Your task to perform on an android device: turn off priority inbox in the gmail app Image 0: 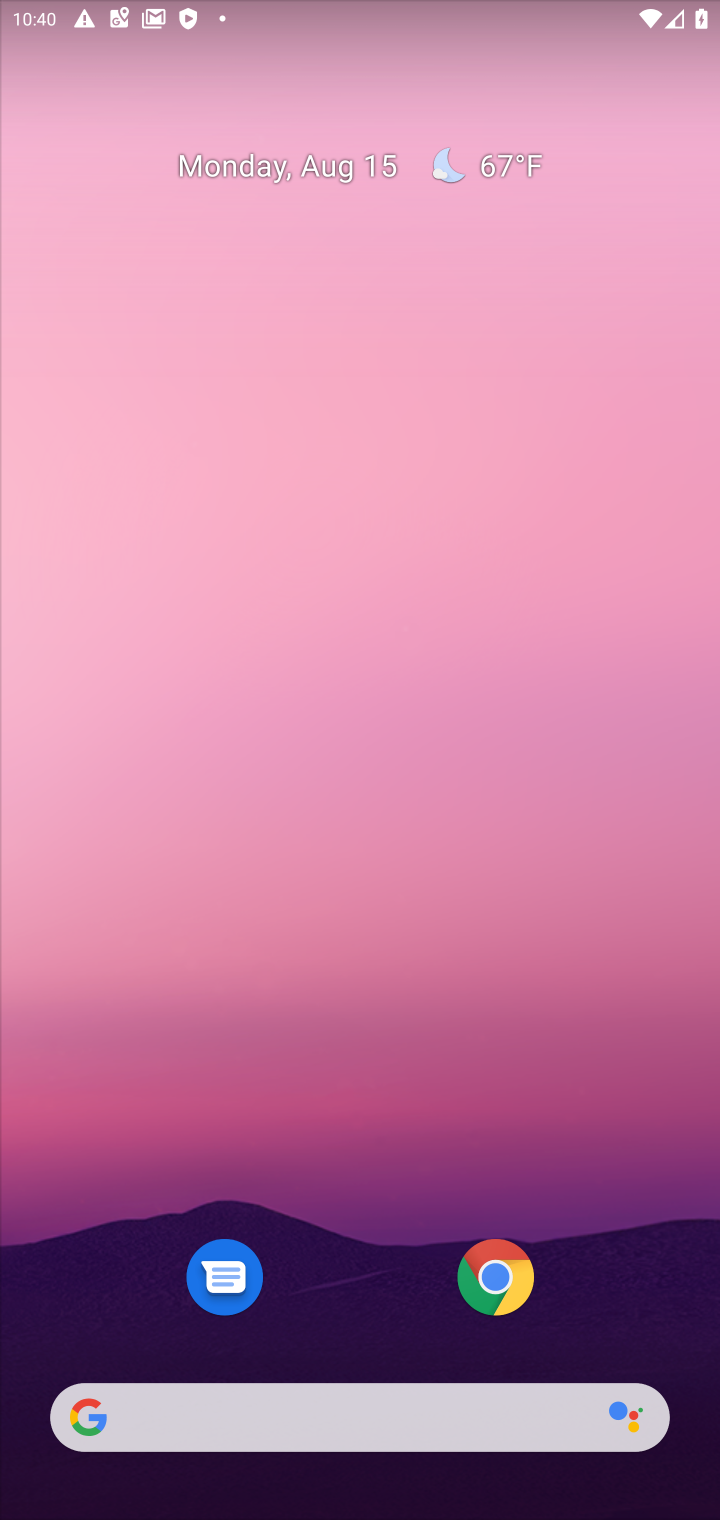
Step 0: drag from (454, 1375) to (557, 468)
Your task to perform on an android device: turn off priority inbox in the gmail app Image 1: 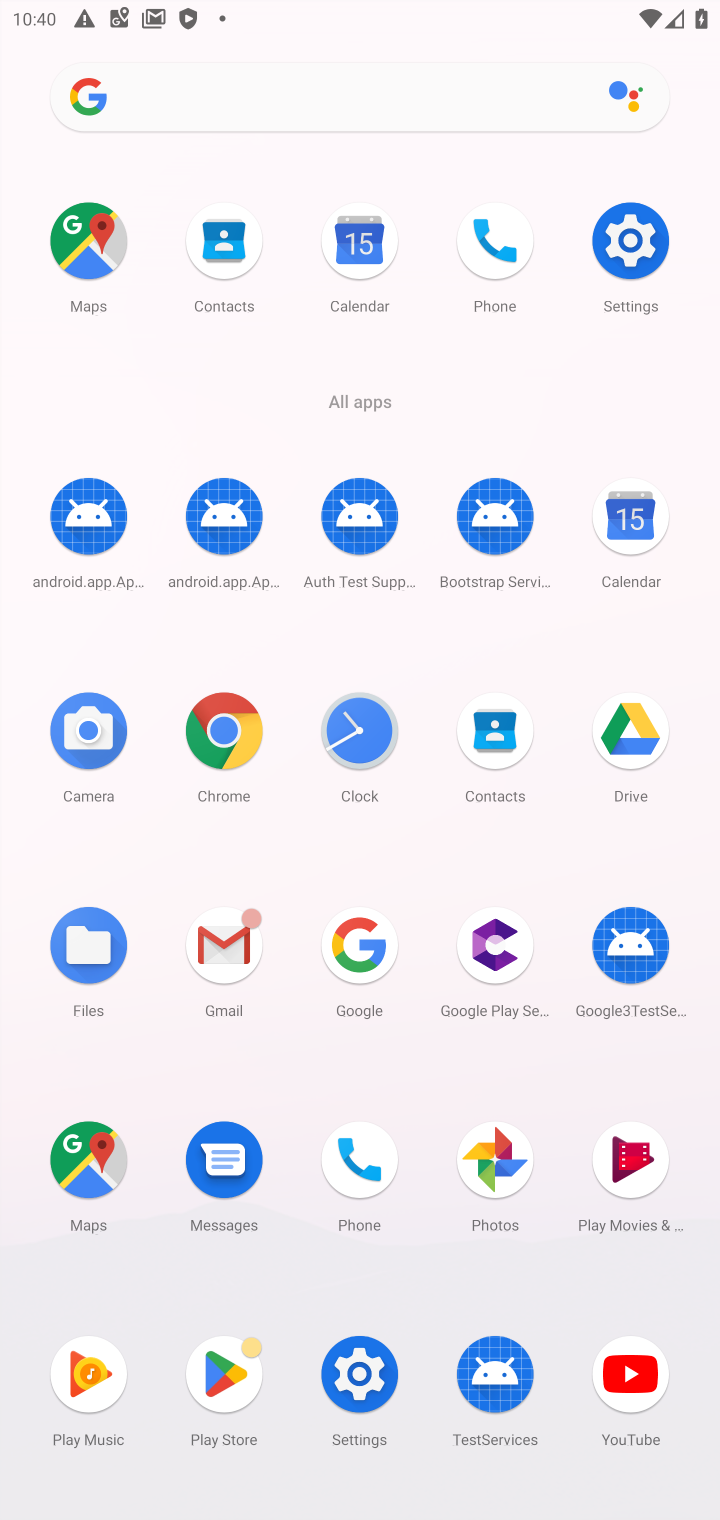
Step 1: click (210, 964)
Your task to perform on an android device: turn off priority inbox in the gmail app Image 2: 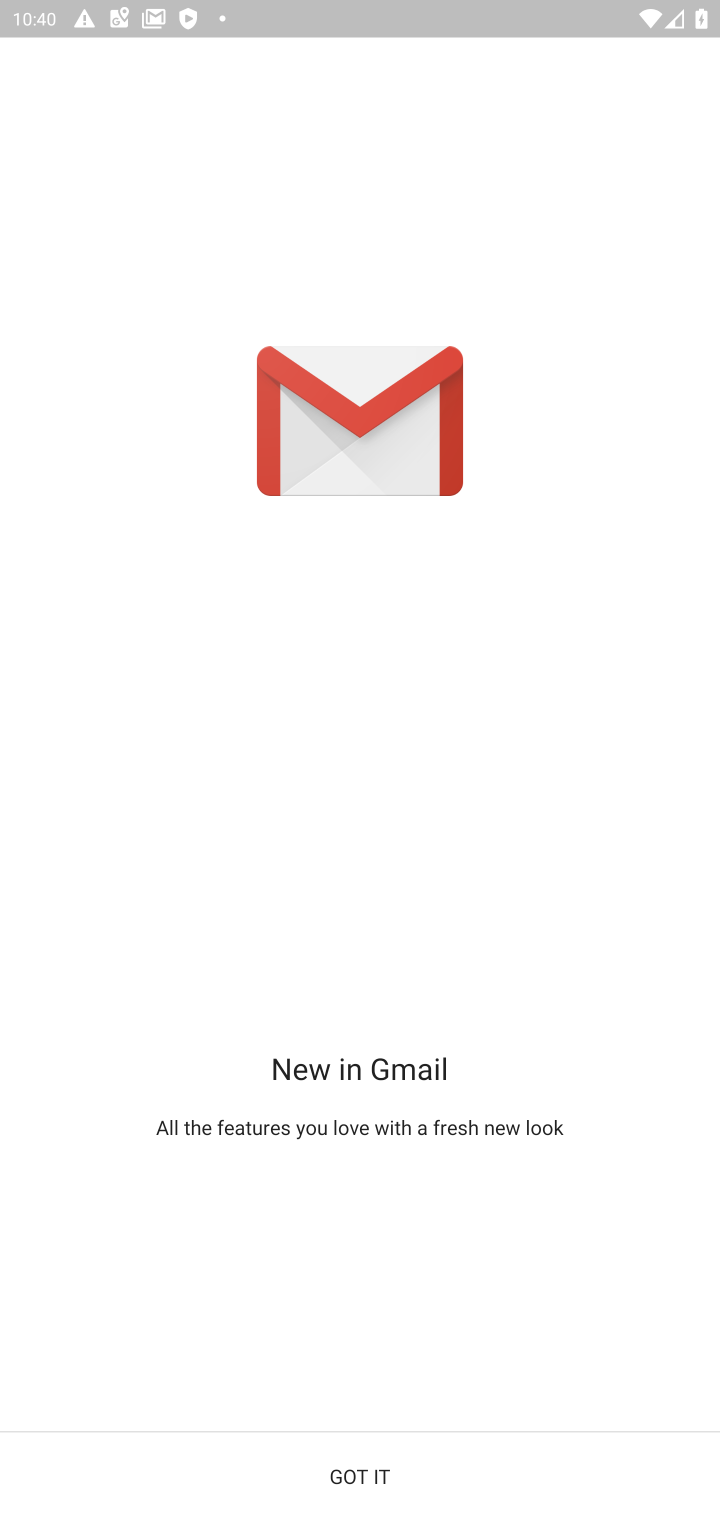
Step 2: click (457, 1441)
Your task to perform on an android device: turn off priority inbox in the gmail app Image 3: 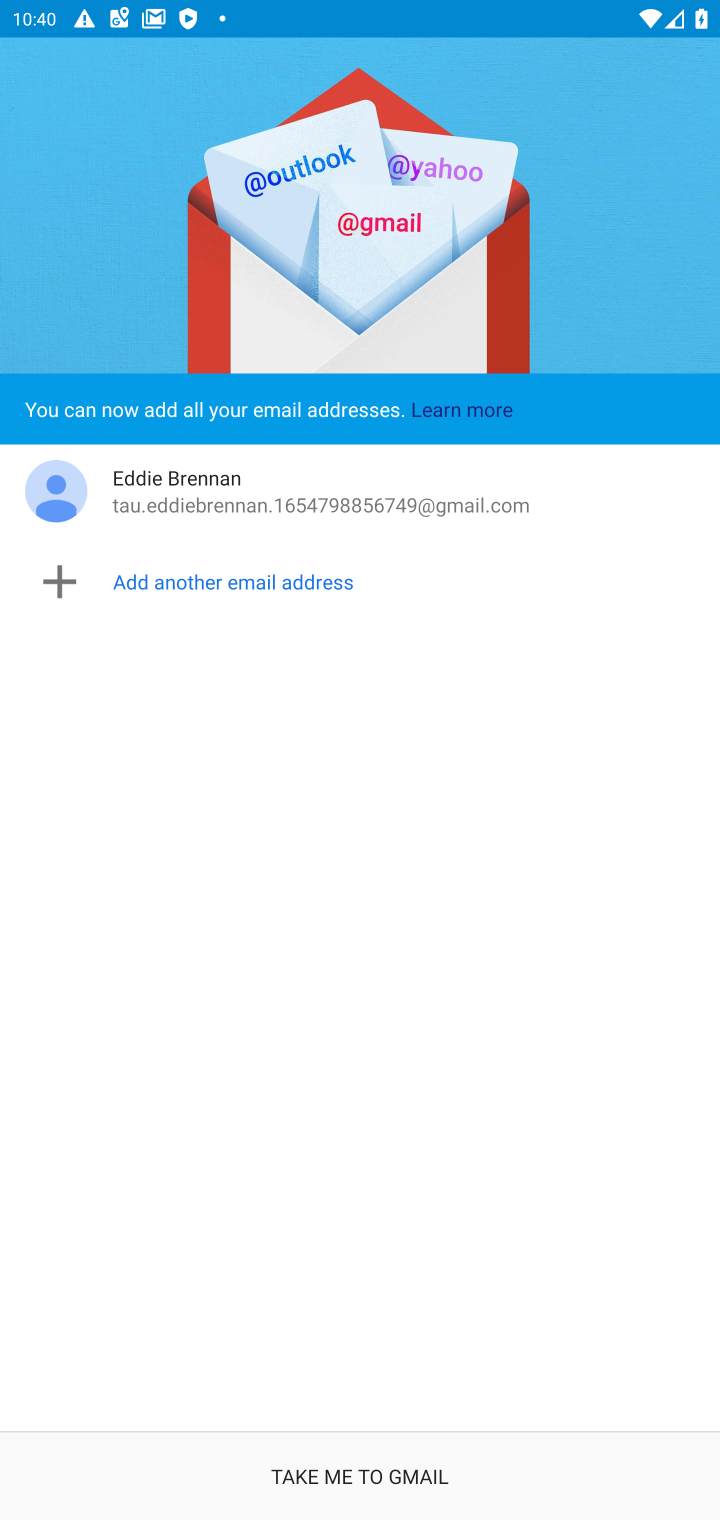
Step 3: click (442, 1451)
Your task to perform on an android device: turn off priority inbox in the gmail app Image 4: 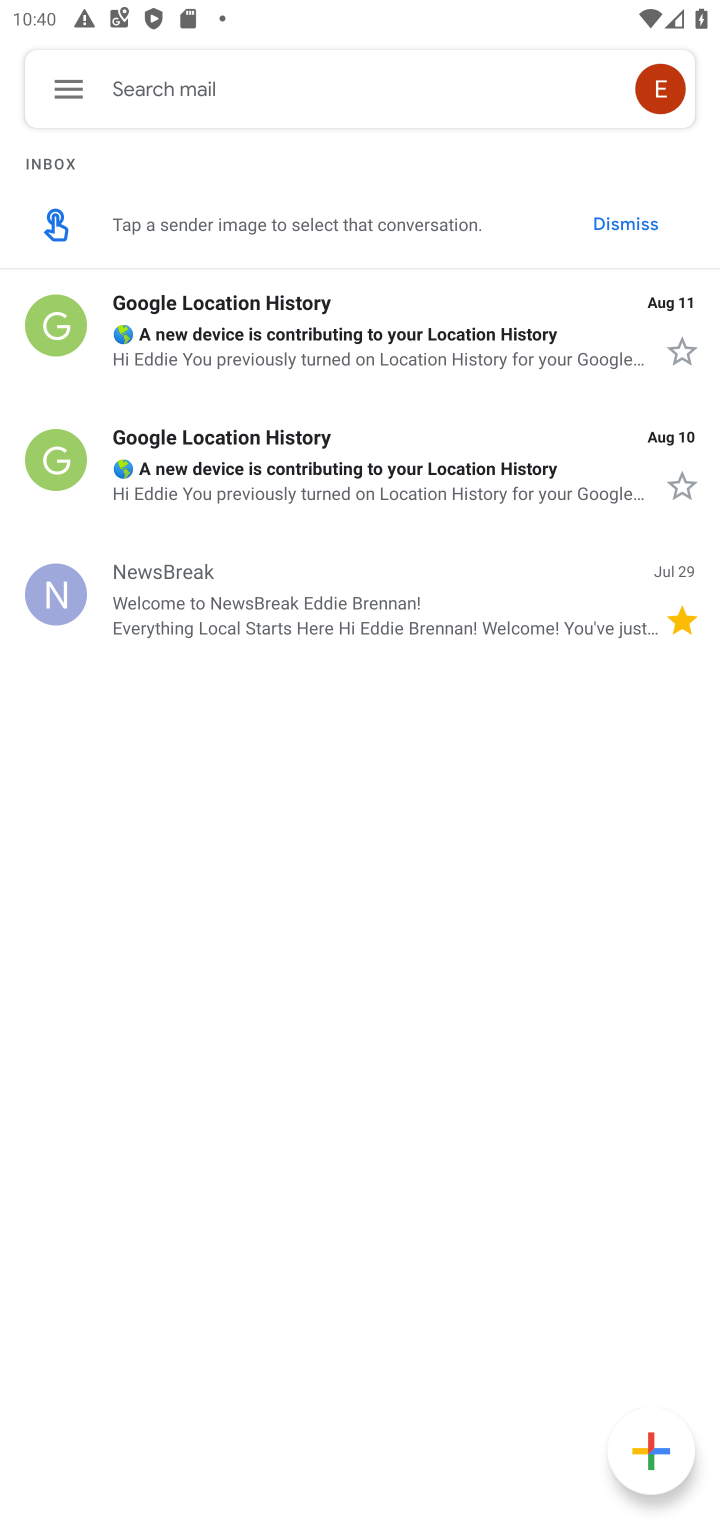
Step 4: click (58, 82)
Your task to perform on an android device: turn off priority inbox in the gmail app Image 5: 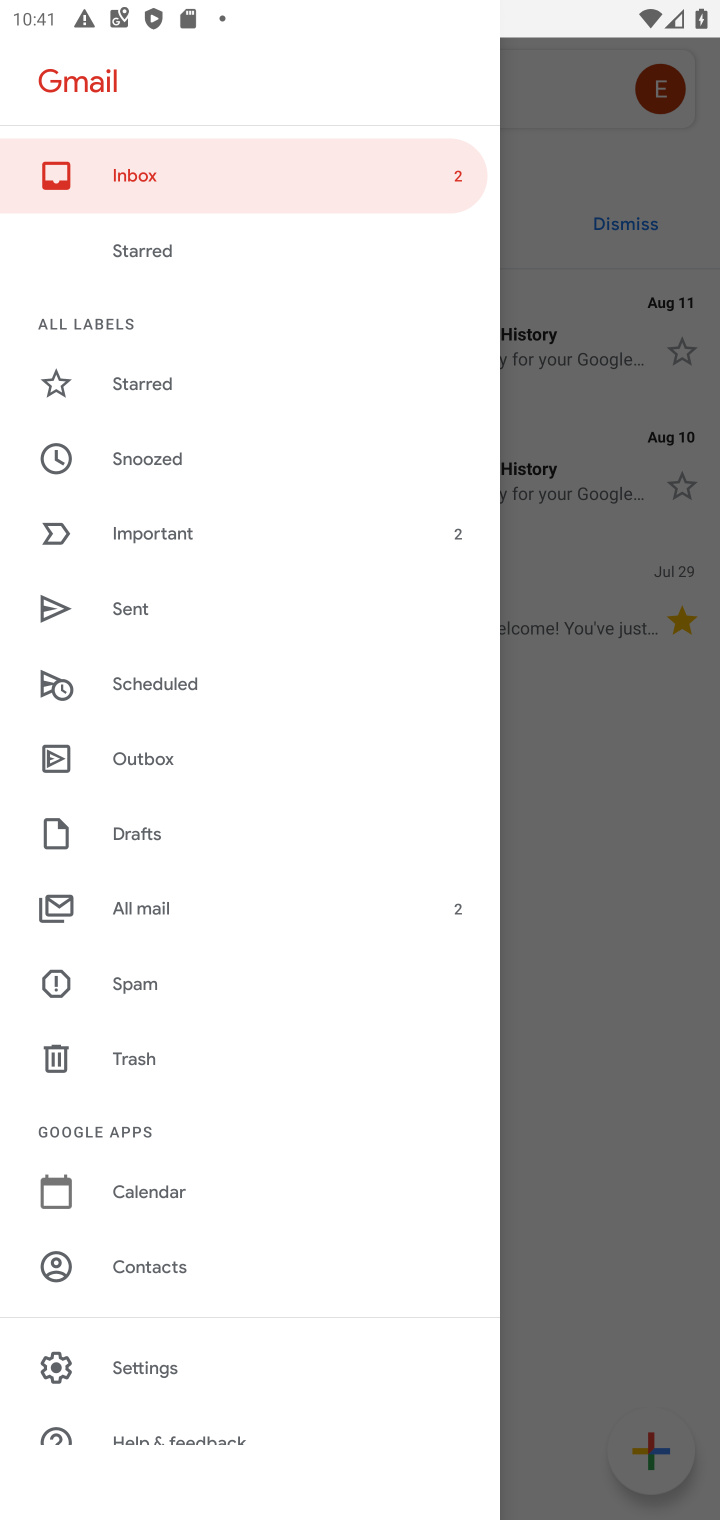
Step 5: click (196, 1358)
Your task to perform on an android device: turn off priority inbox in the gmail app Image 6: 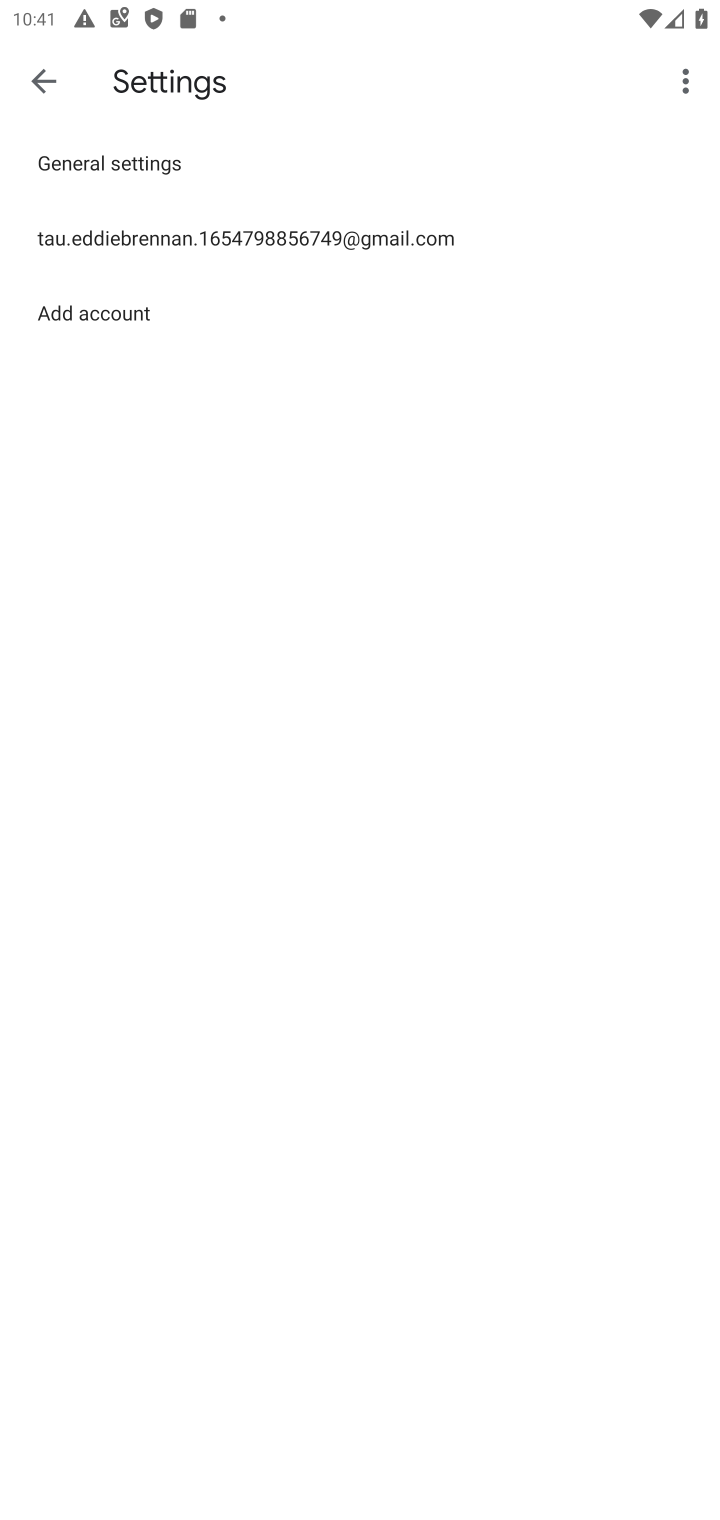
Step 6: click (316, 252)
Your task to perform on an android device: turn off priority inbox in the gmail app Image 7: 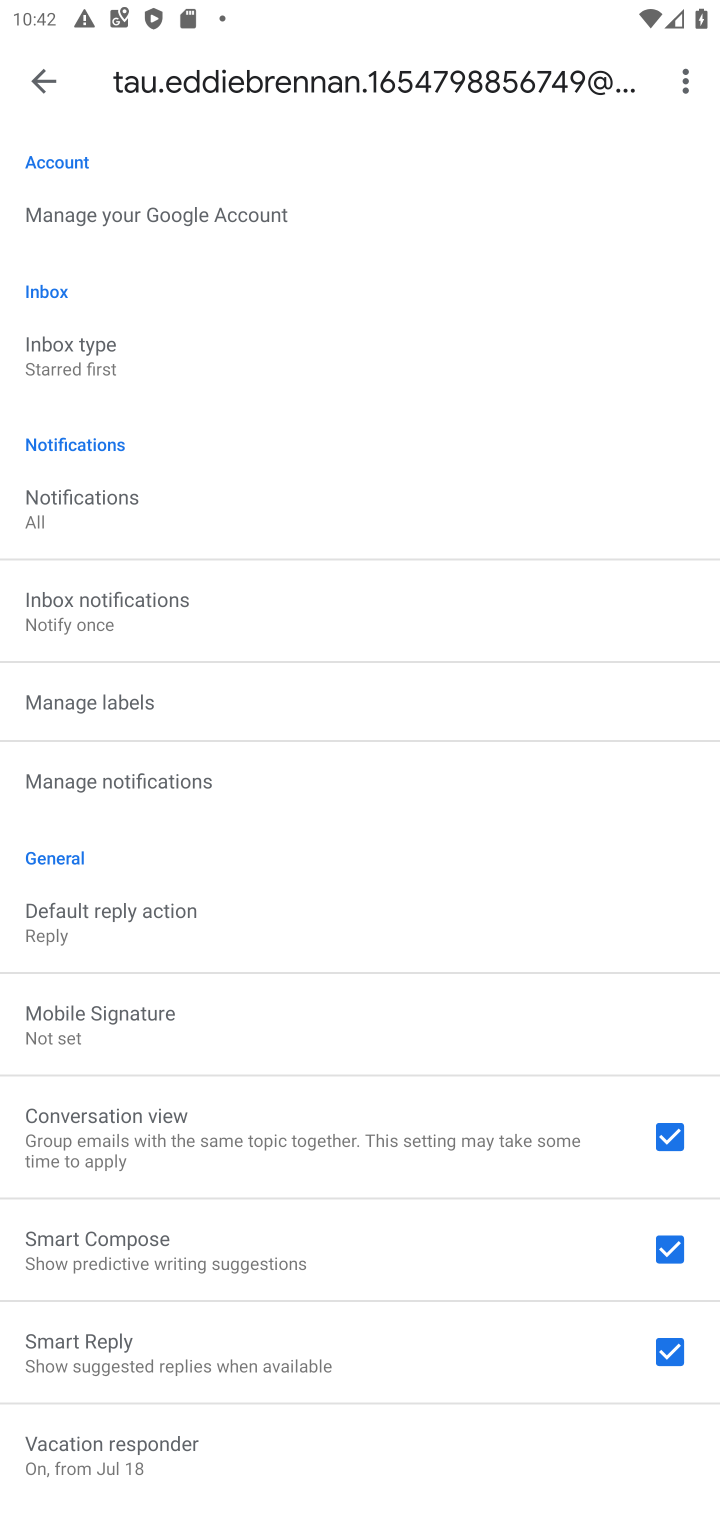
Step 7: drag from (398, 996) to (415, 289)
Your task to perform on an android device: turn off priority inbox in the gmail app Image 8: 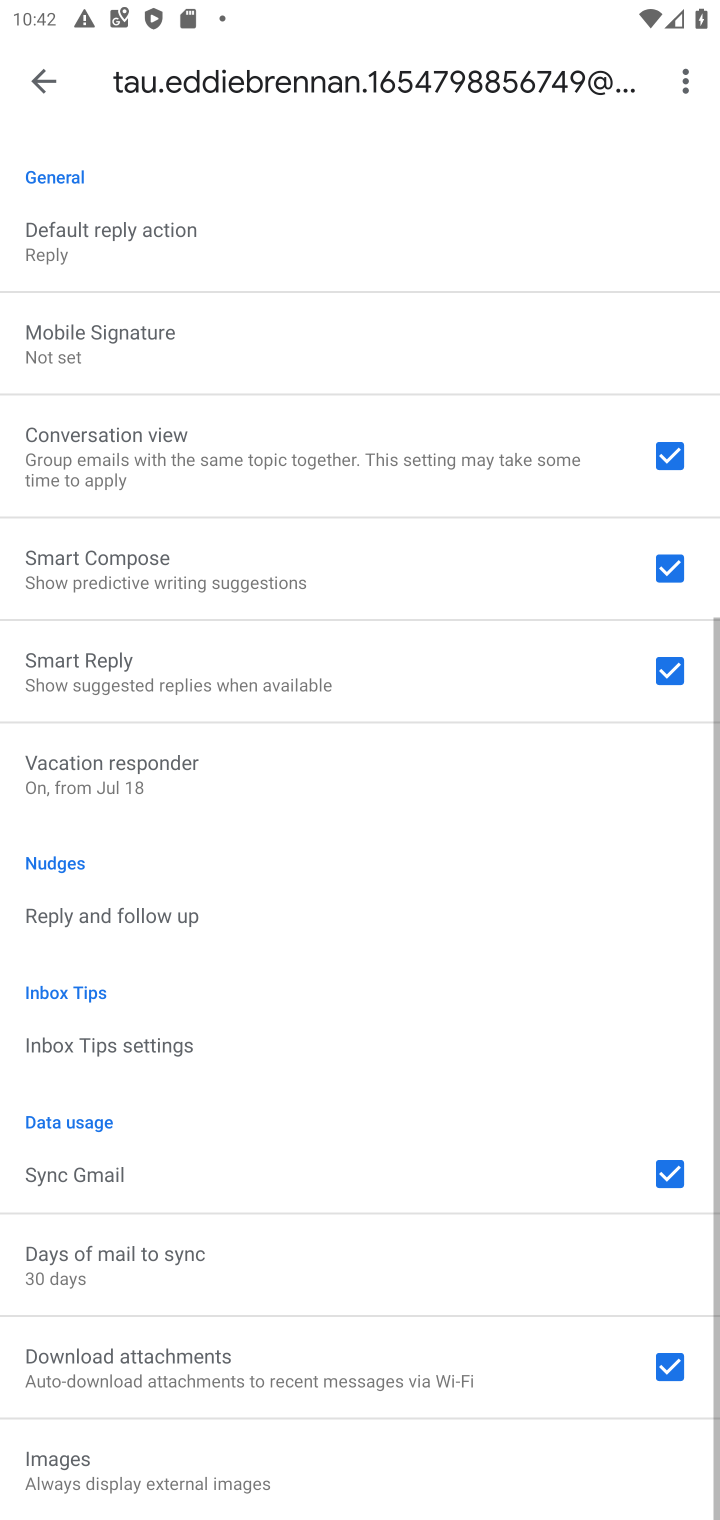
Step 8: drag from (415, 289) to (549, 1144)
Your task to perform on an android device: turn off priority inbox in the gmail app Image 9: 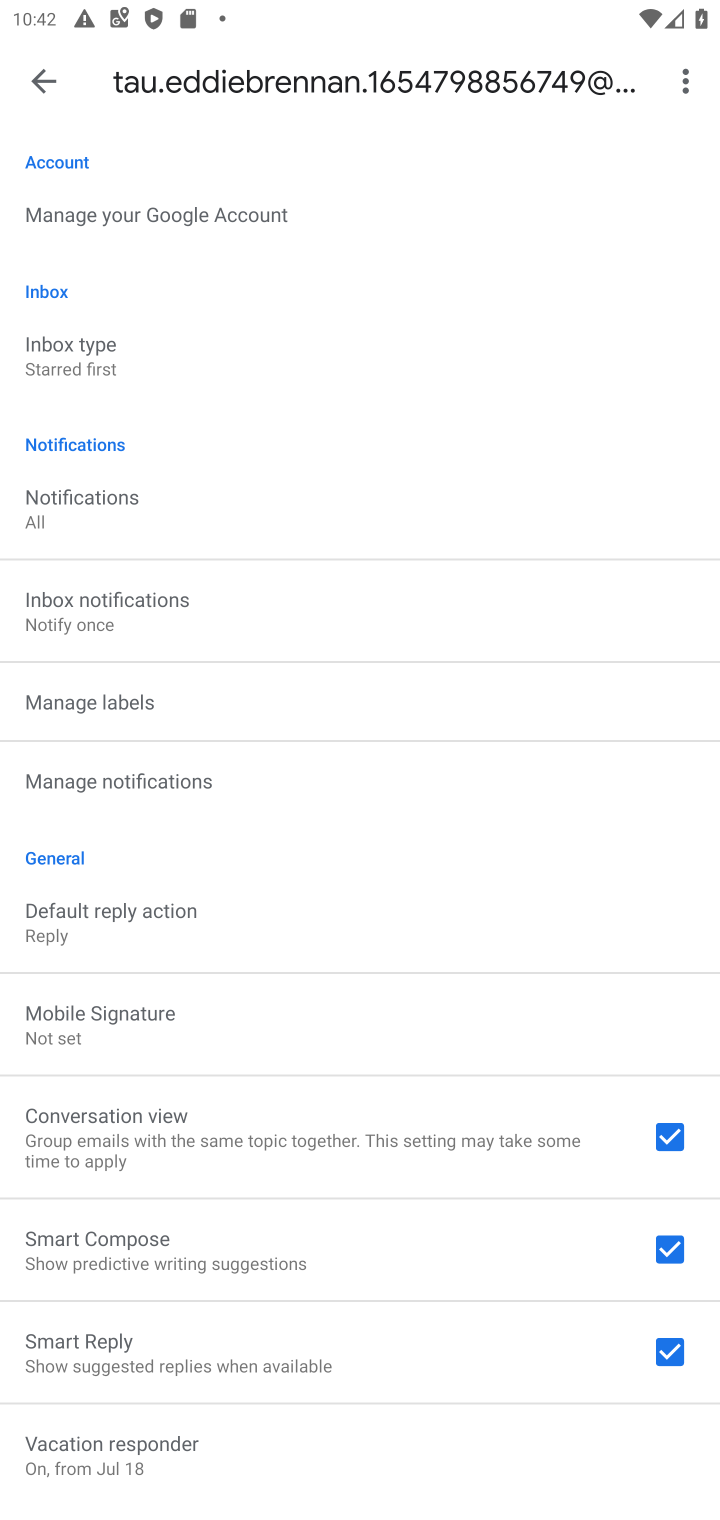
Step 9: click (352, 358)
Your task to perform on an android device: turn off priority inbox in the gmail app Image 10: 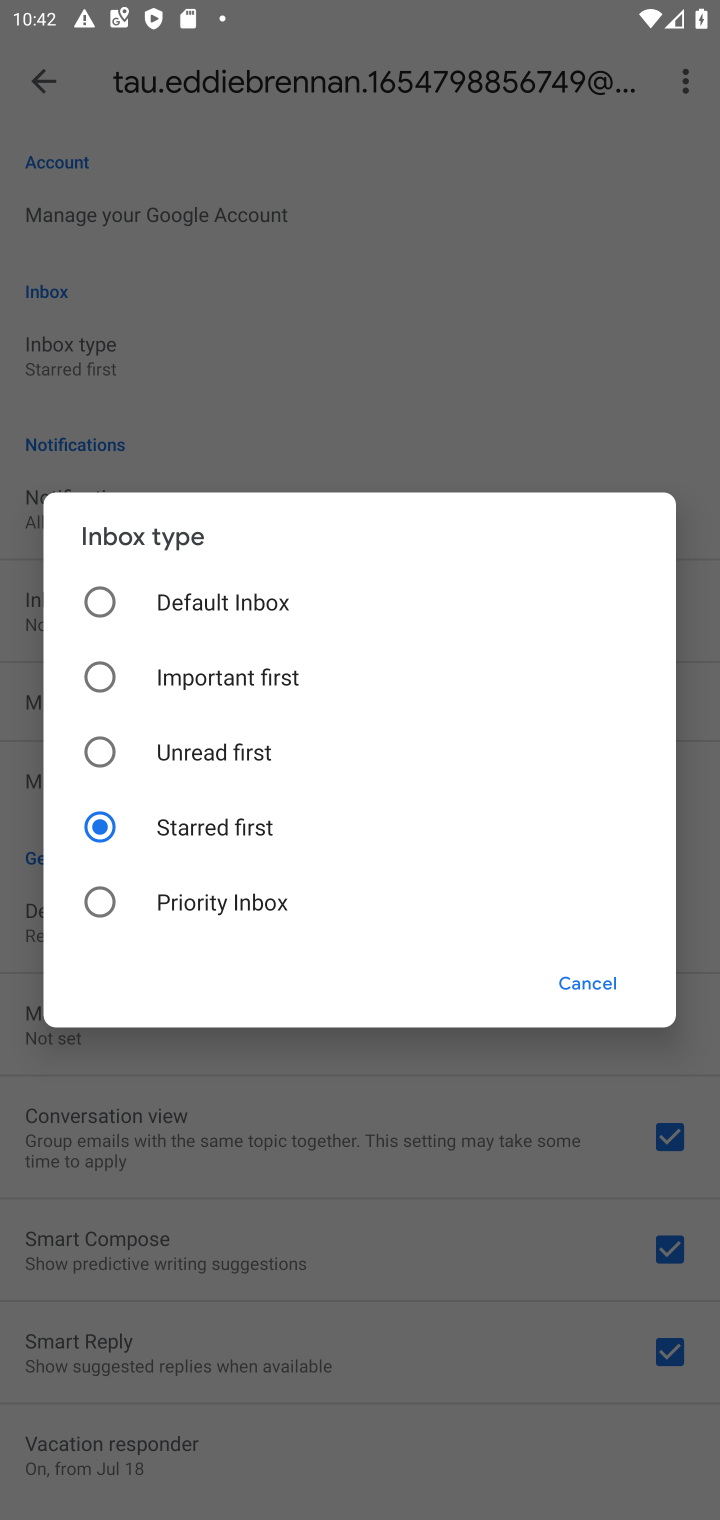
Step 10: click (261, 823)
Your task to perform on an android device: turn off priority inbox in the gmail app Image 11: 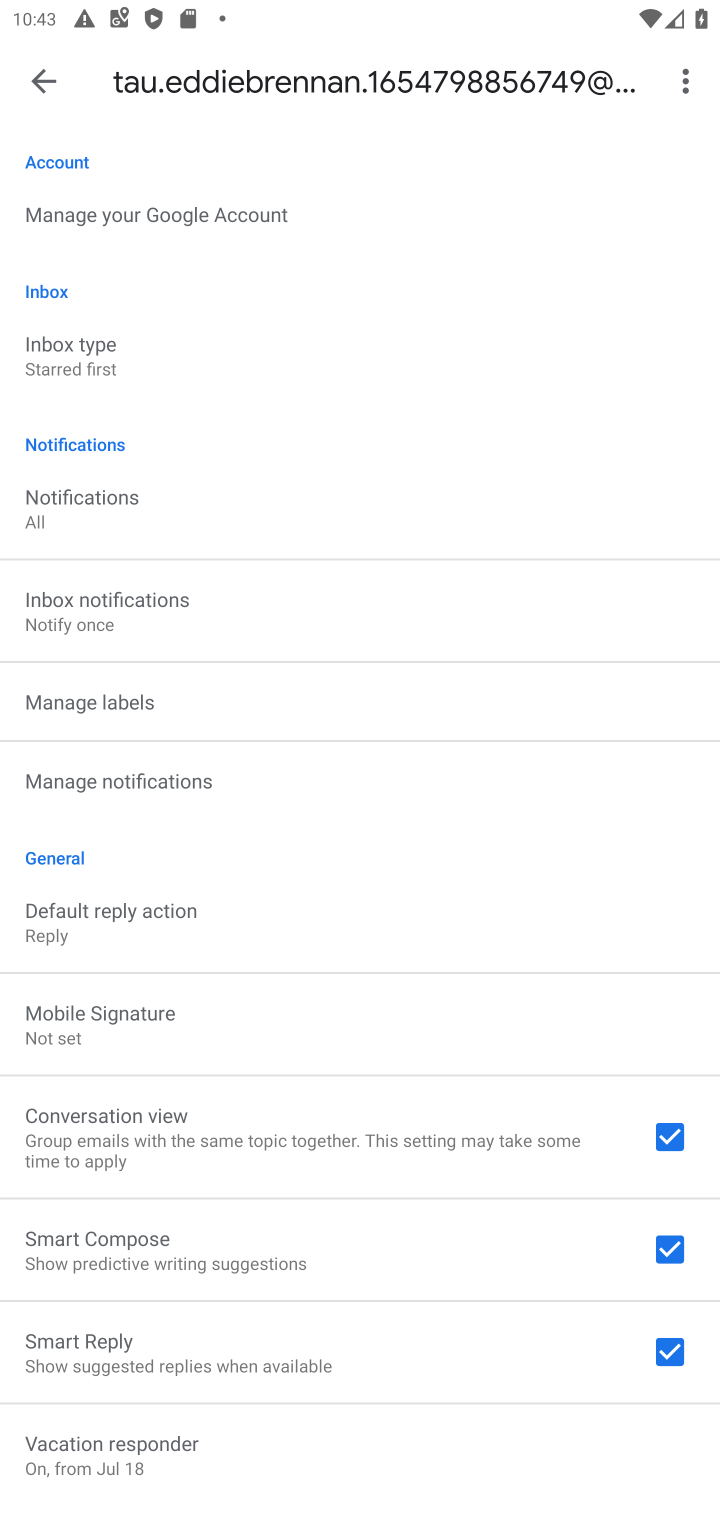
Step 11: task complete